Your task to perform on an android device: show emergency info Image 0: 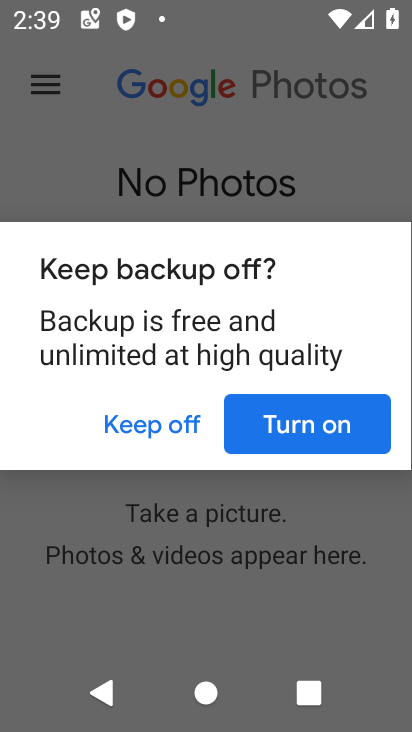
Step 0: press back button
Your task to perform on an android device: show emergency info Image 1: 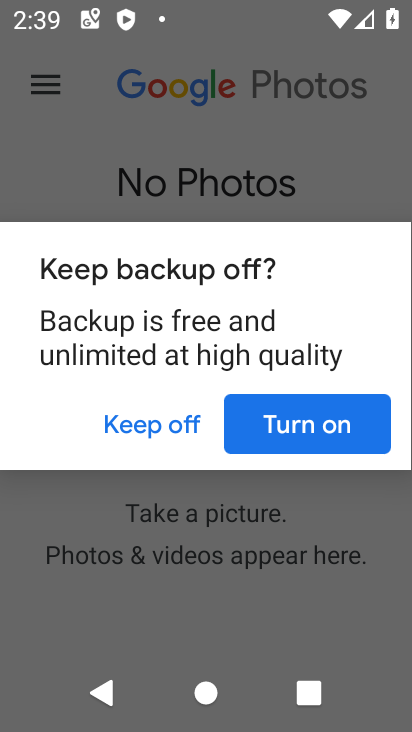
Step 1: press back button
Your task to perform on an android device: show emergency info Image 2: 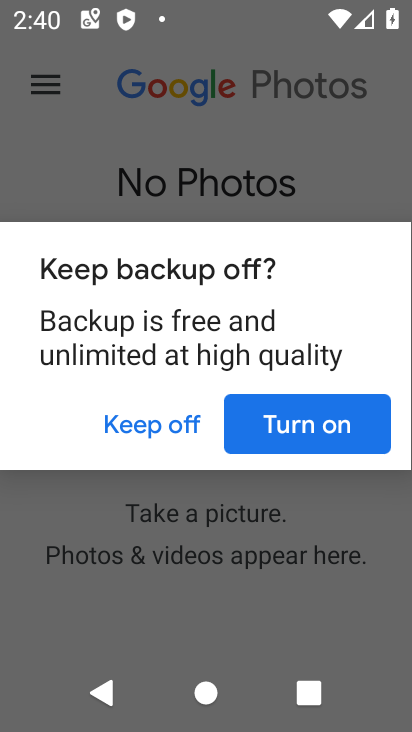
Step 2: press home button
Your task to perform on an android device: show emergency info Image 3: 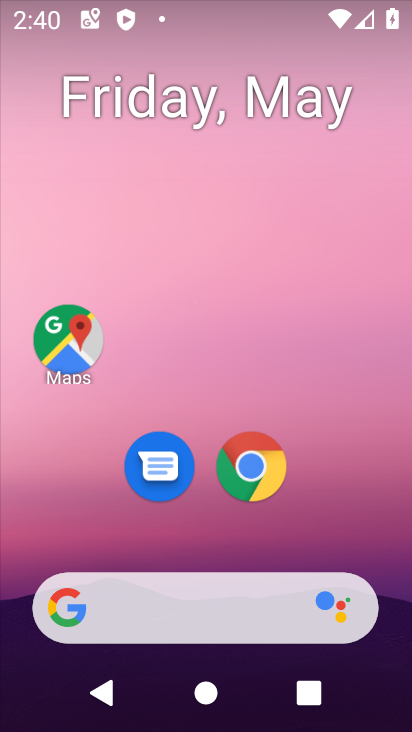
Step 3: drag from (166, 539) to (291, 42)
Your task to perform on an android device: show emergency info Image 4: 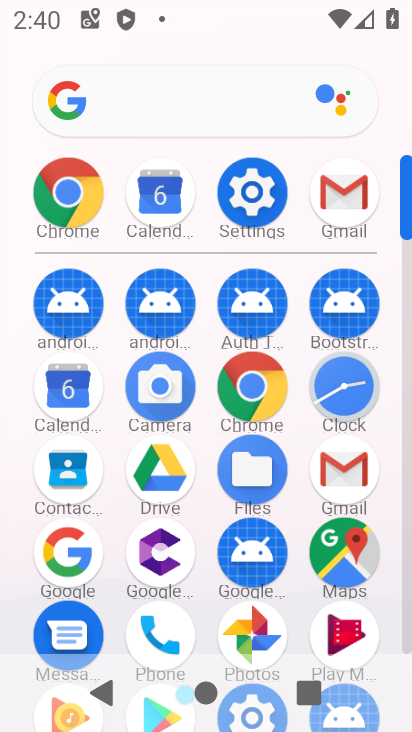
Step 4: click (253, 193)
Your task to perform on an android device: show emergency info Image 5: 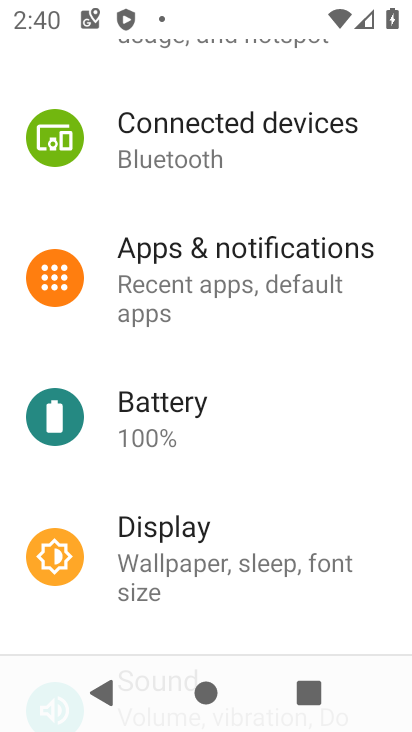
Step 5: drag from (167, 625) to (349, 75)
Your task to perform on an android device: show emergency info Image 6: 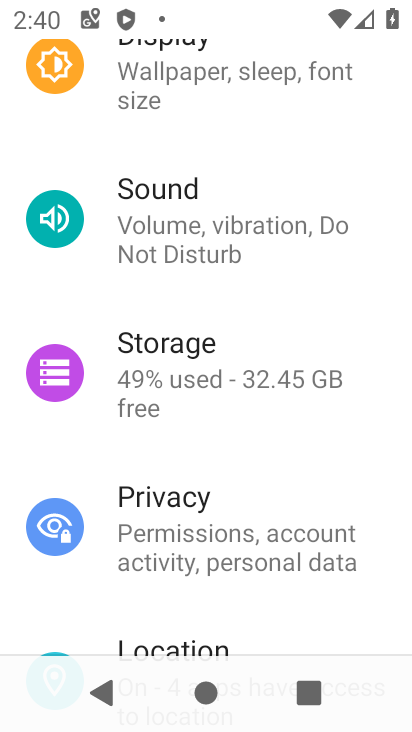
Step 6: drag from (181, 622) to (326, 70)
Your task to perform on an android device: show emergency info Image 7: 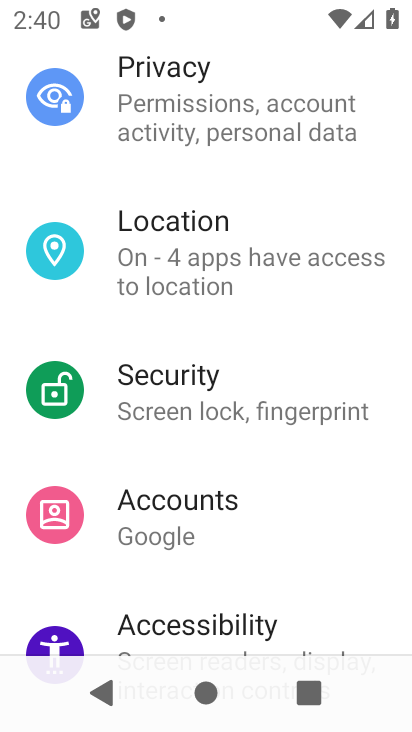
Step 7: drag from (172, 561) to (335, 78)
Your task to perform on an android device: show emergency info Image 8: 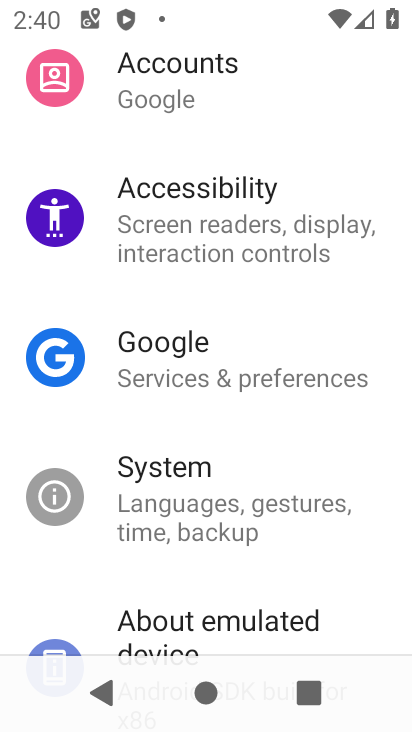
Step 8: drag from (142, 595) to (307, 55)
Your task to perform on an android device: show emergency info Image 9: 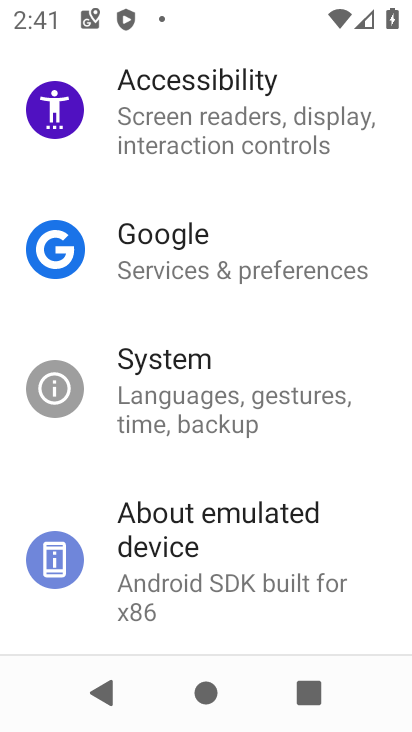
Step 9: click (216, 530)
Your task to perform on an android device: show emergency info Image 10: 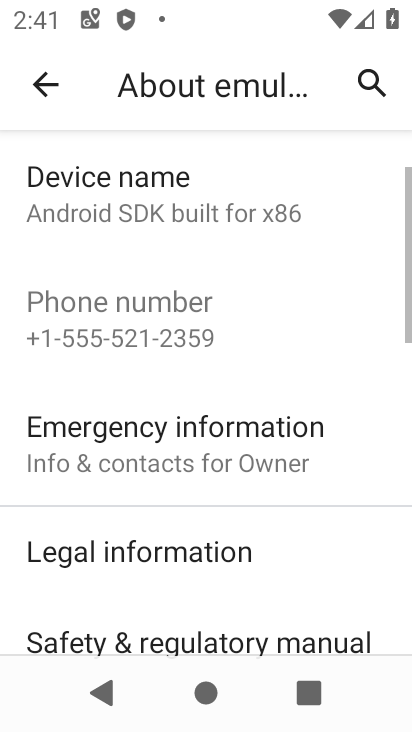
Step 10: click (151, 458)
Your task to perform on an android device: show emergency info Image 11: 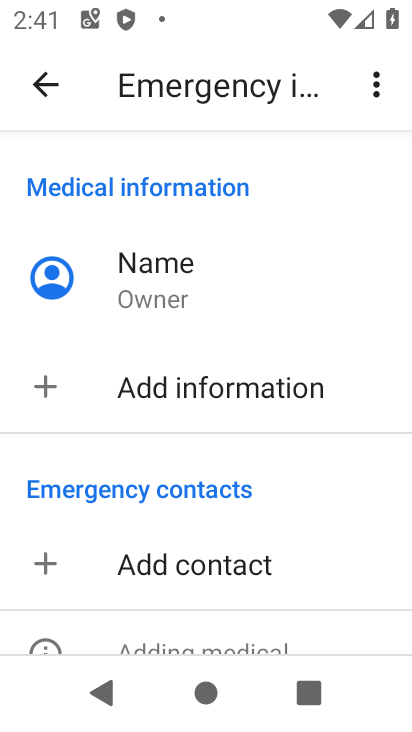
Step 11: task complete